Your task to perform on an android device: What's on the menu at Starbucks? Image 0: 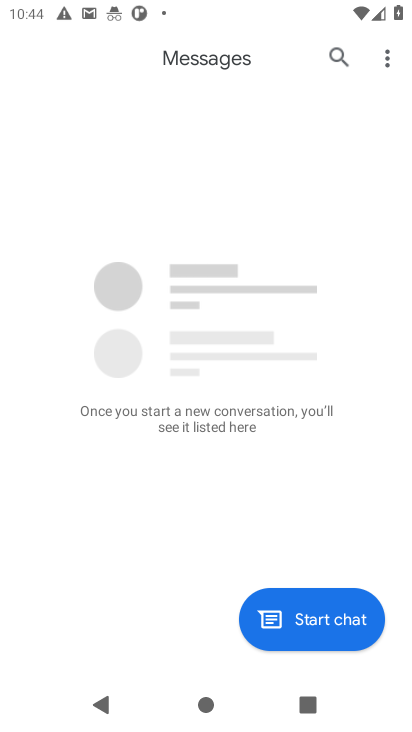
Step 0: press home button
Your task to perform on an android device: What's on the menu at Starbucks? Image 1: 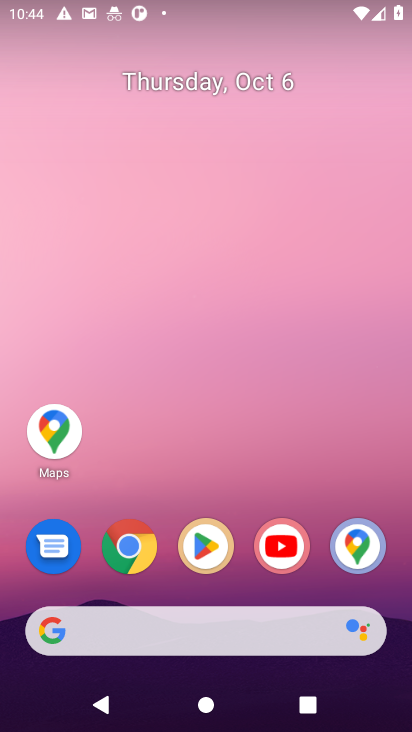
Step 1: click (131, 551)
Your task to perform on an android device: What's on the menu at Starbucks? Image 2: 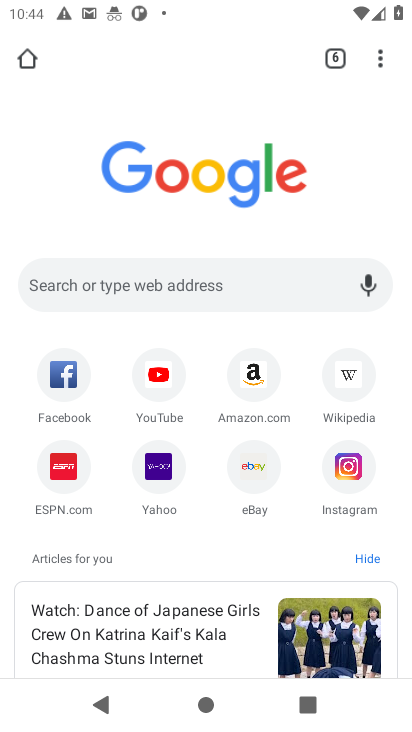
Step 2: click (123, 285)
Your task to perform on an android device: What's on the menu at Starbucks? Image 3: 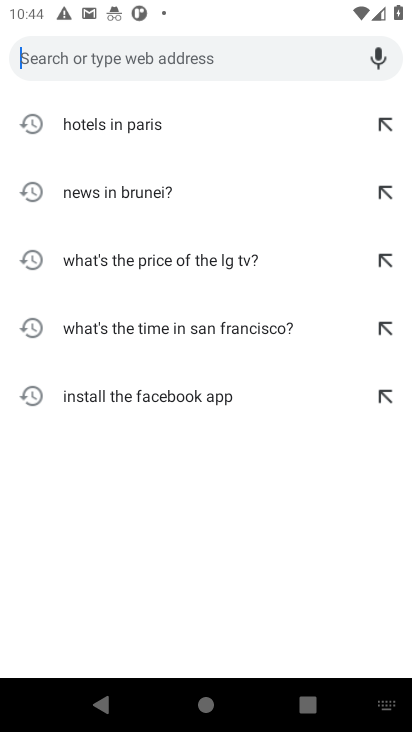
Step 3: type "menu at Starbucks?"
Your task to perform on an android device: What's on the menu at Starbucks? Image 4: 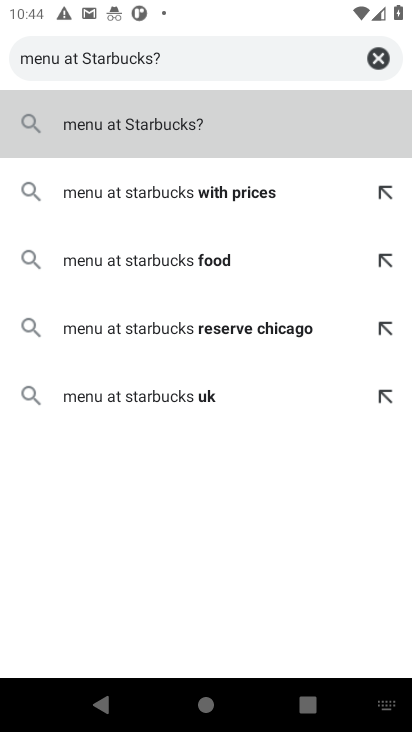
Step 4: click (113, 114)
Your task to perform on an android device: What's on the menu at Starbucks? Image 5: 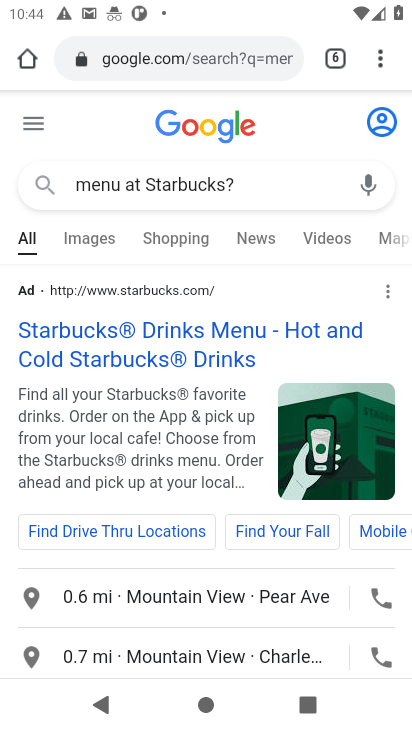
Step 5: click (84, 338)
Your task to perform on an android device: What's on the menu at Starbucks? Image 6: 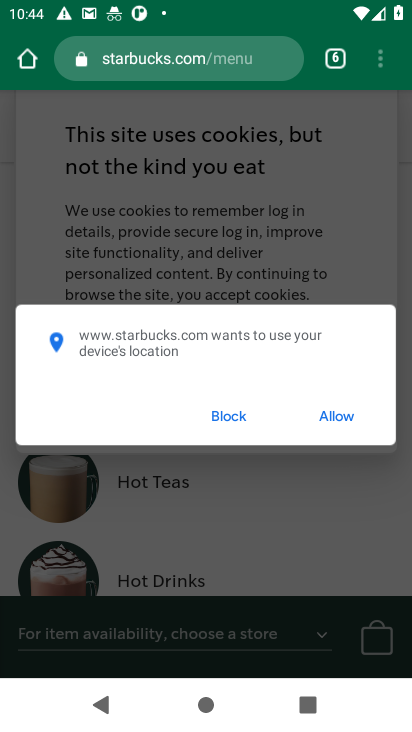
Step 6: click (221, 417)
Your task to perform on an android device: What's on the menu at Starbucks? Image 7: 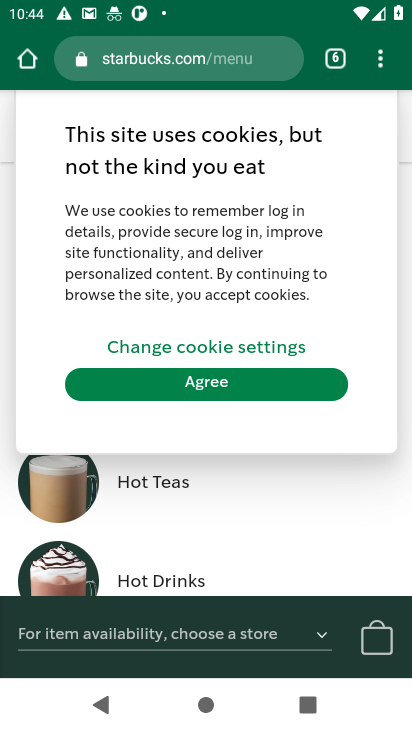
Step 7: click (201, 387)
Your task to perform on an android device: What's on the menu at Starbucks? Image 8: 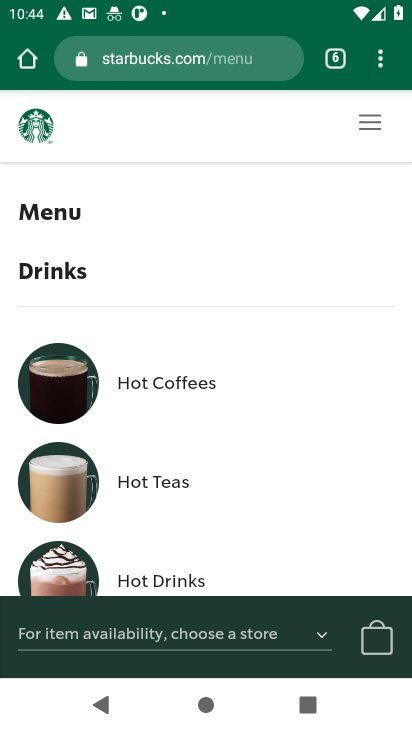
Step 8: task complete